Your task to perform on an android device: add a label to a message in the gmail app Image 0: 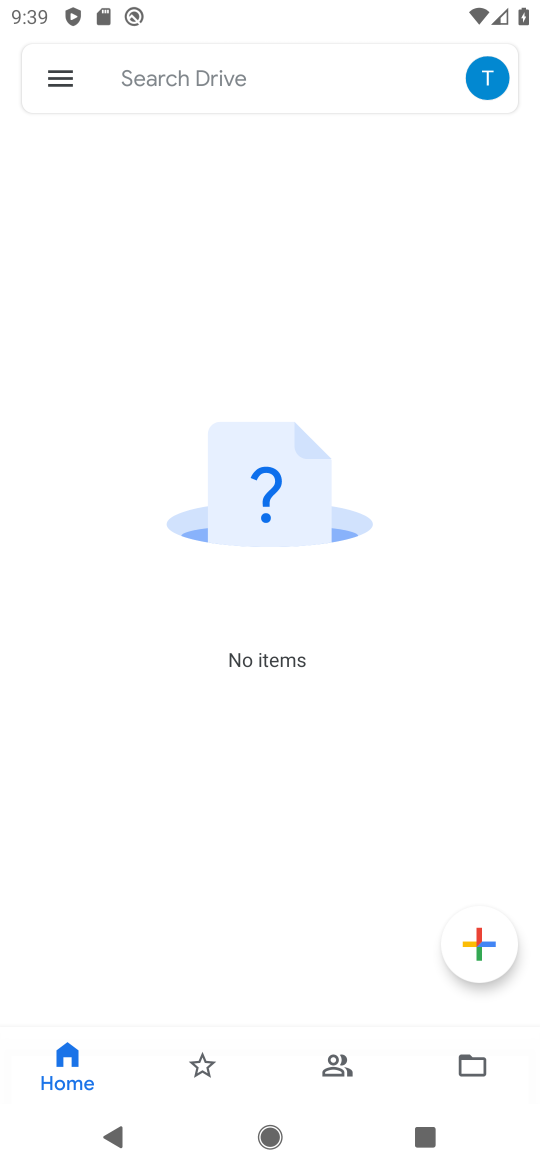
Step 0: task complete